Your task to perform on an android device: turn on location history Image 0: 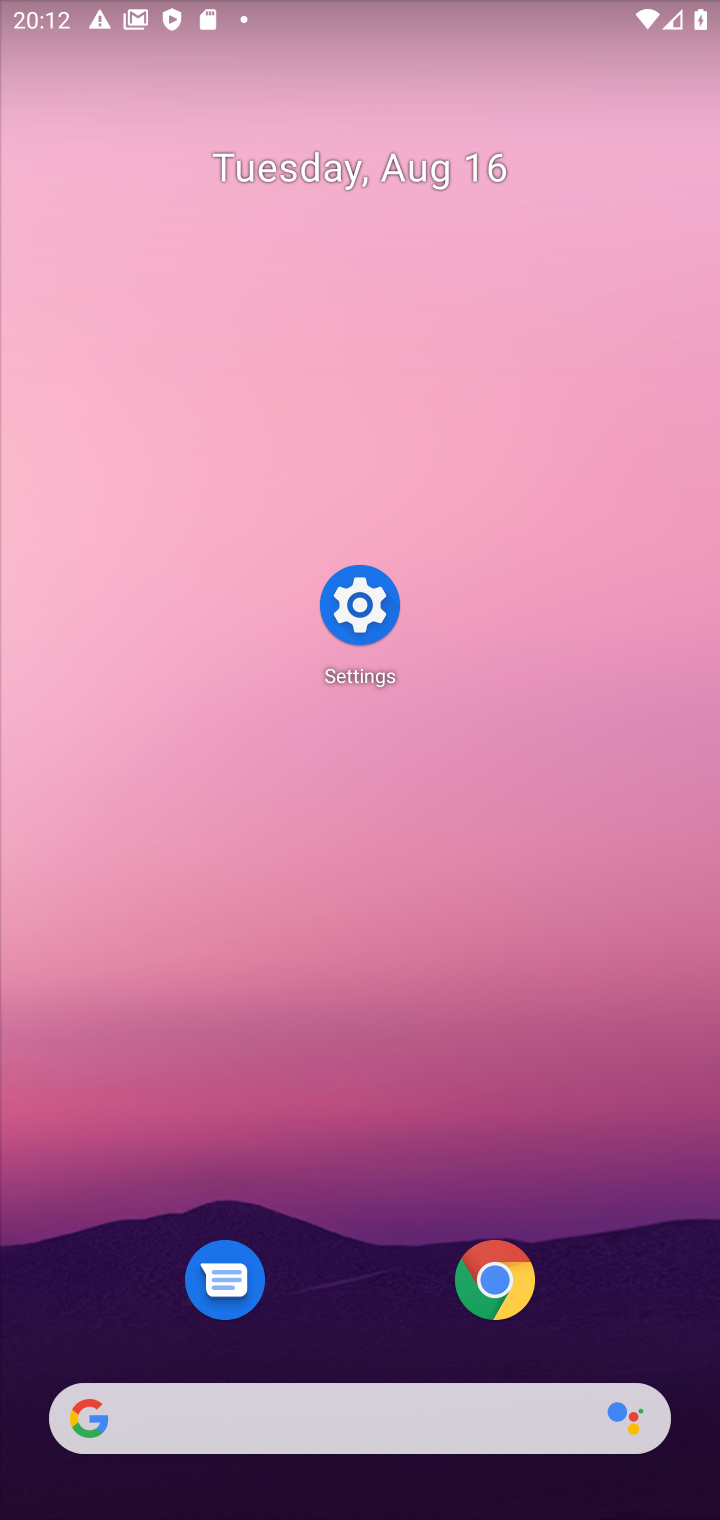
Step 0: drag from (337, 1345) to (415, 103)
Your task to perform on an android device: turn on location history Image 1: 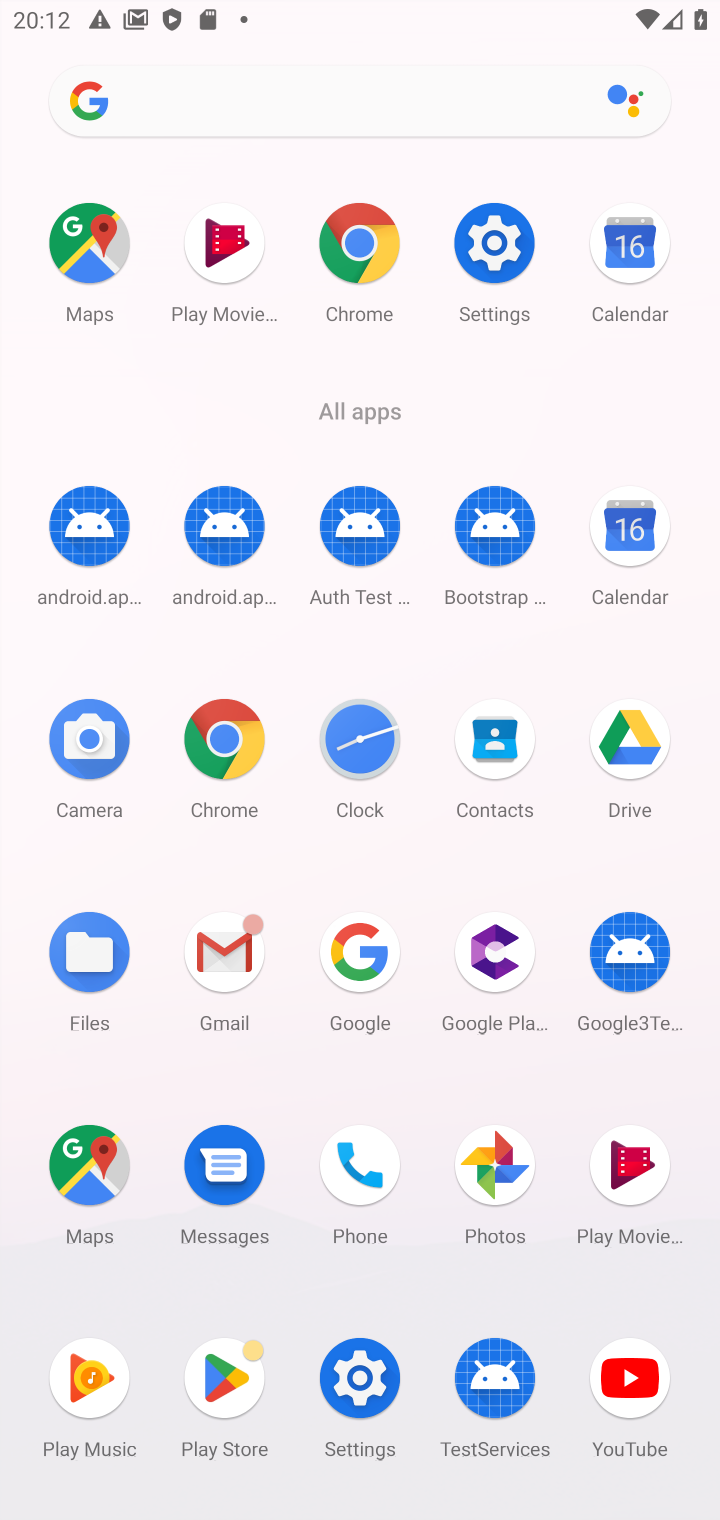
Step 1: click (364, 1396)
Your task to perform on an android device: turn on location history Image 2: 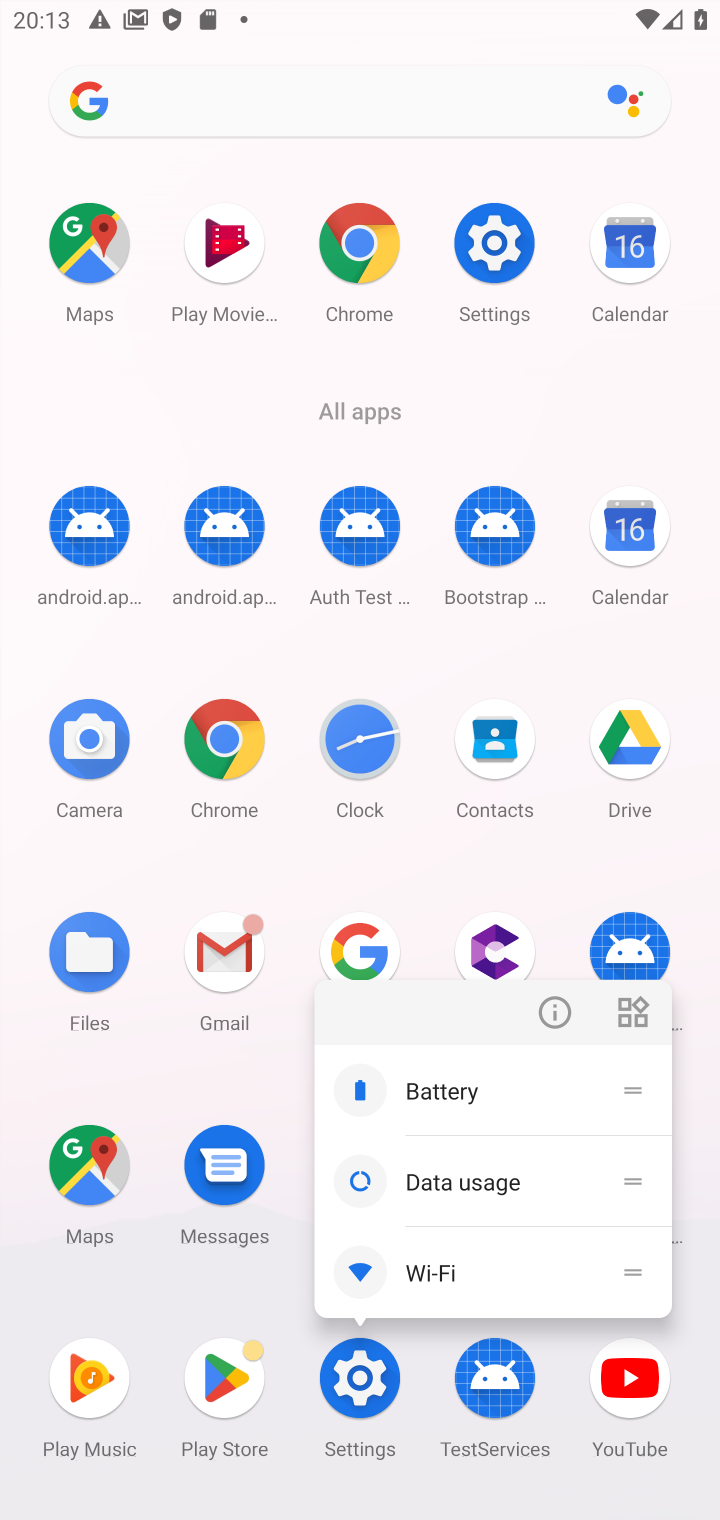
Step 2: click (364, 1396)
Your task to perform on an android device: turn on location history Image 3: 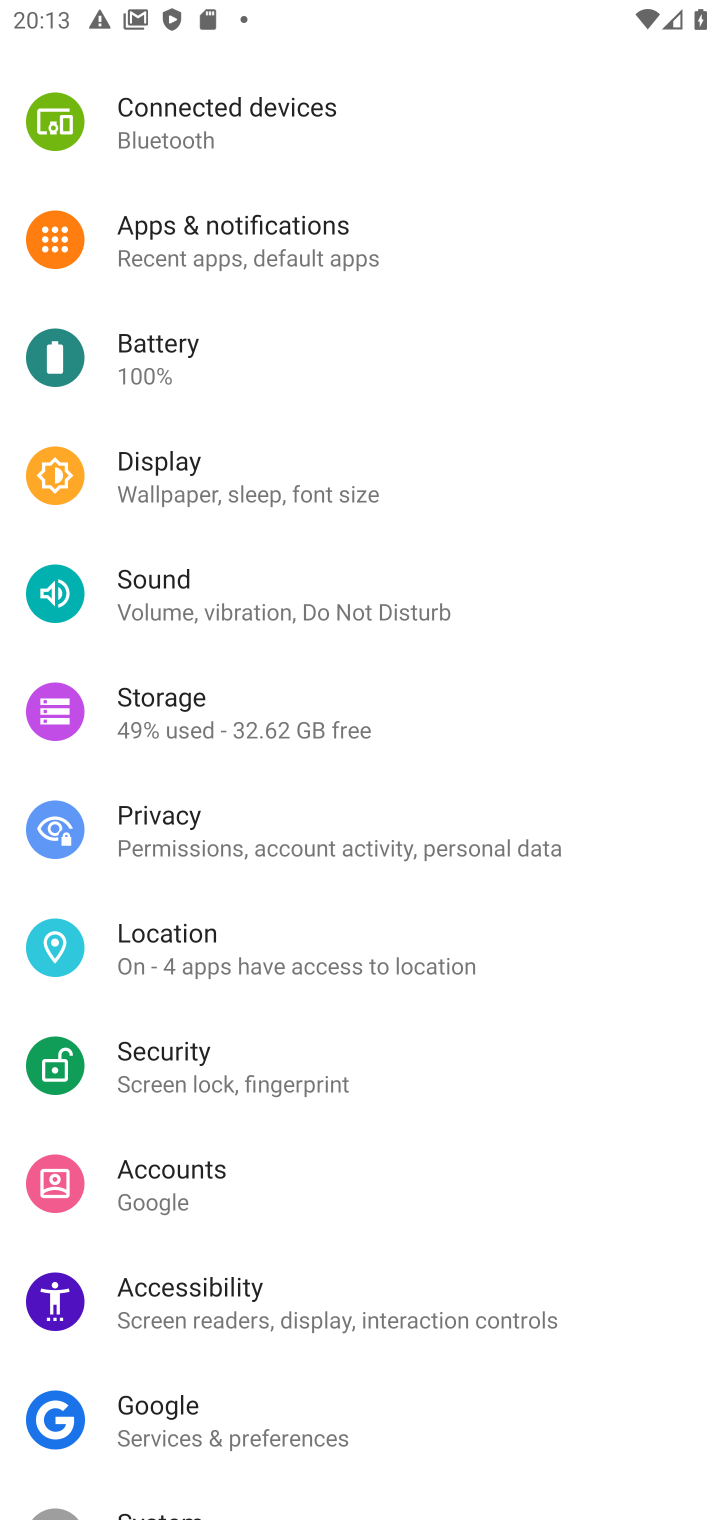
Step 3: click (240, 959)
Your task to perform on an android device: turn on location history Image 4: 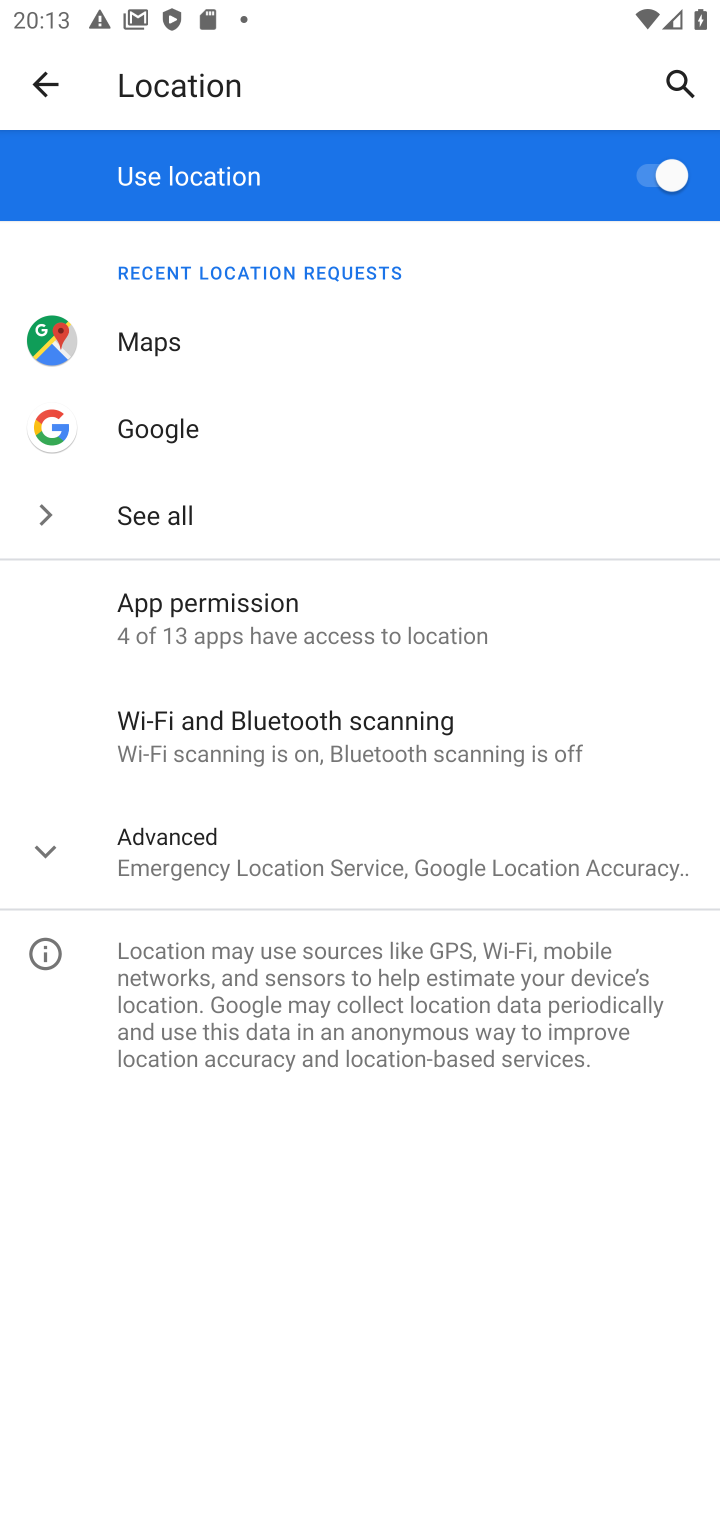
Step 4: click (214, 864)
Your task to perform on an android device: turn on location history Image 5: 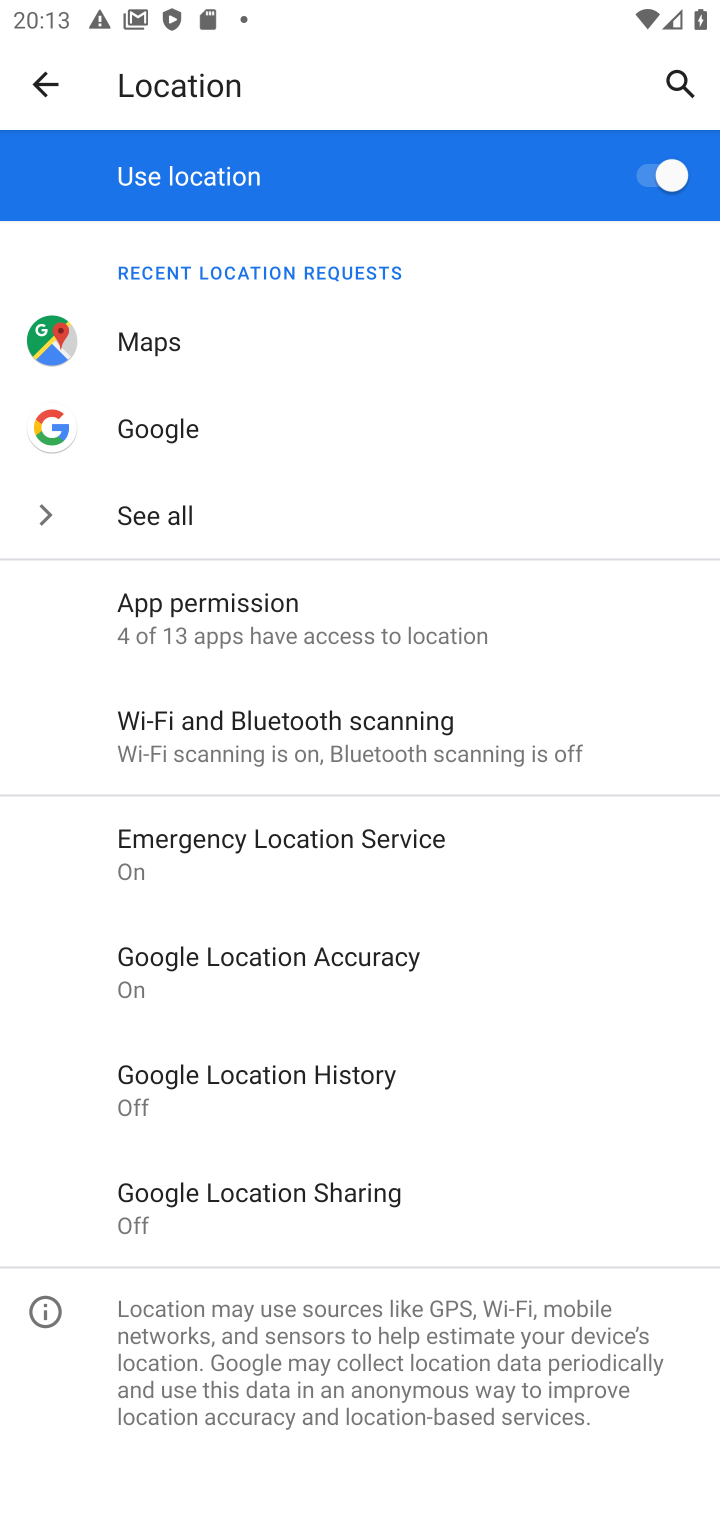
Step 5: click (327, 1089)
Your task to perform on an android device: turn on location history Image 6: 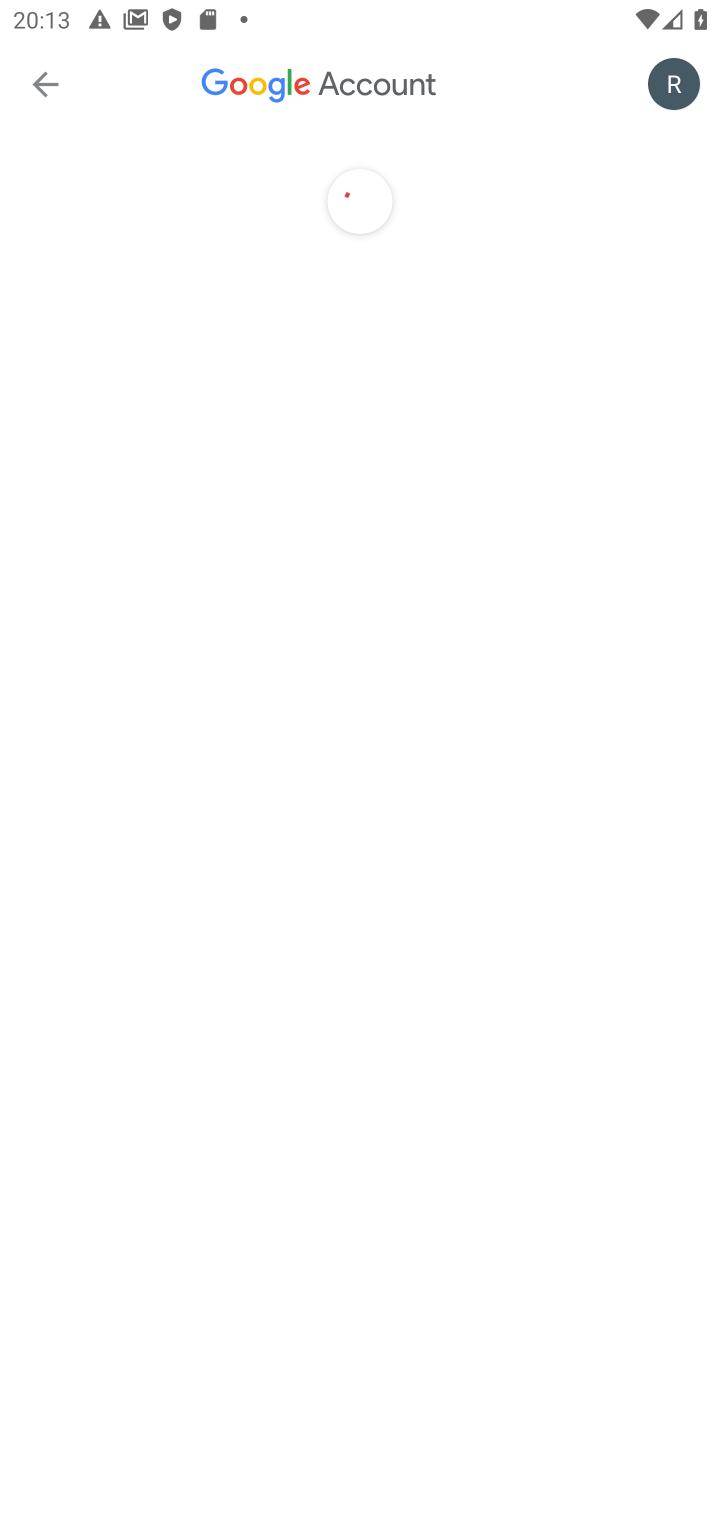
Step 6: click (575, 1092)
Your task to perform on an android device: turn on location history Image 7: 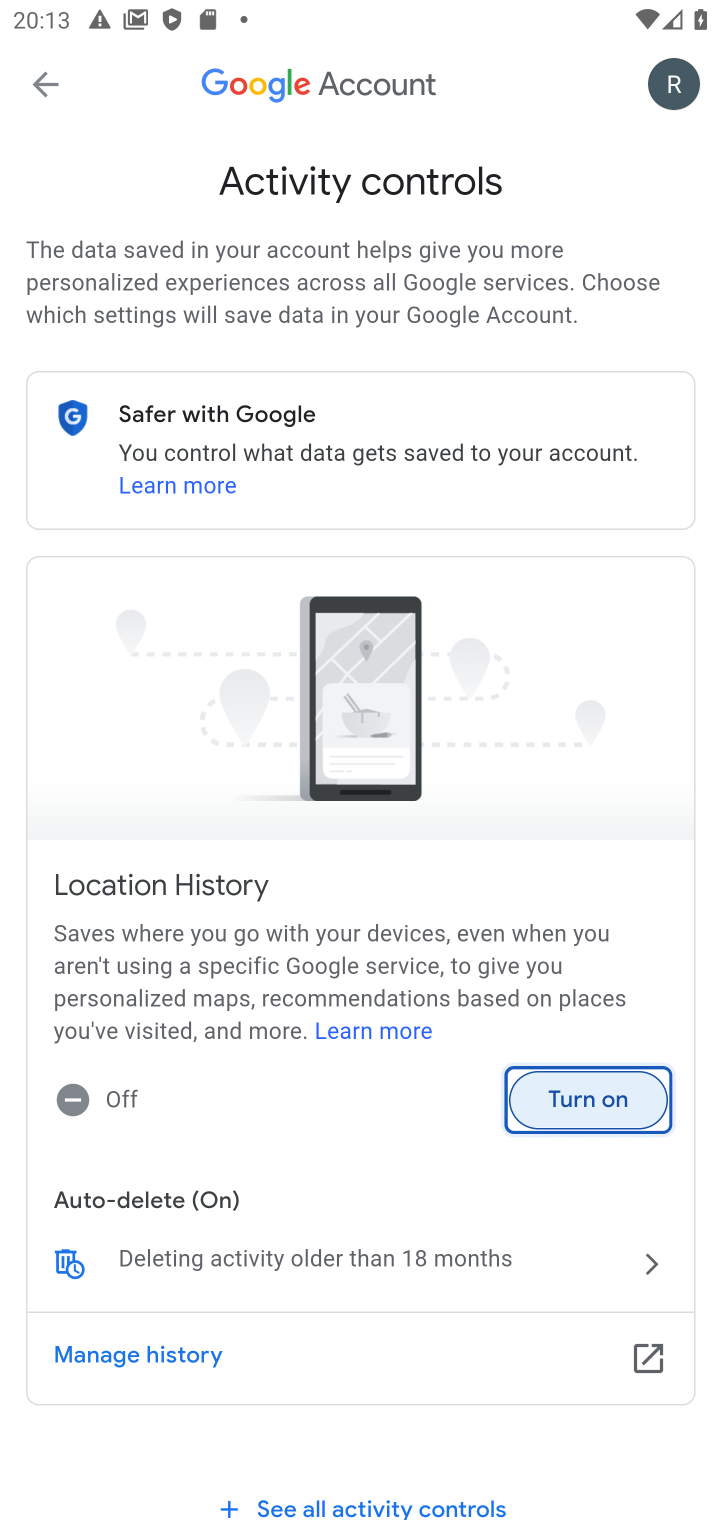
Step 7: click (565, 1100)
Your task to perform on an android device: turn on location history Image 8: 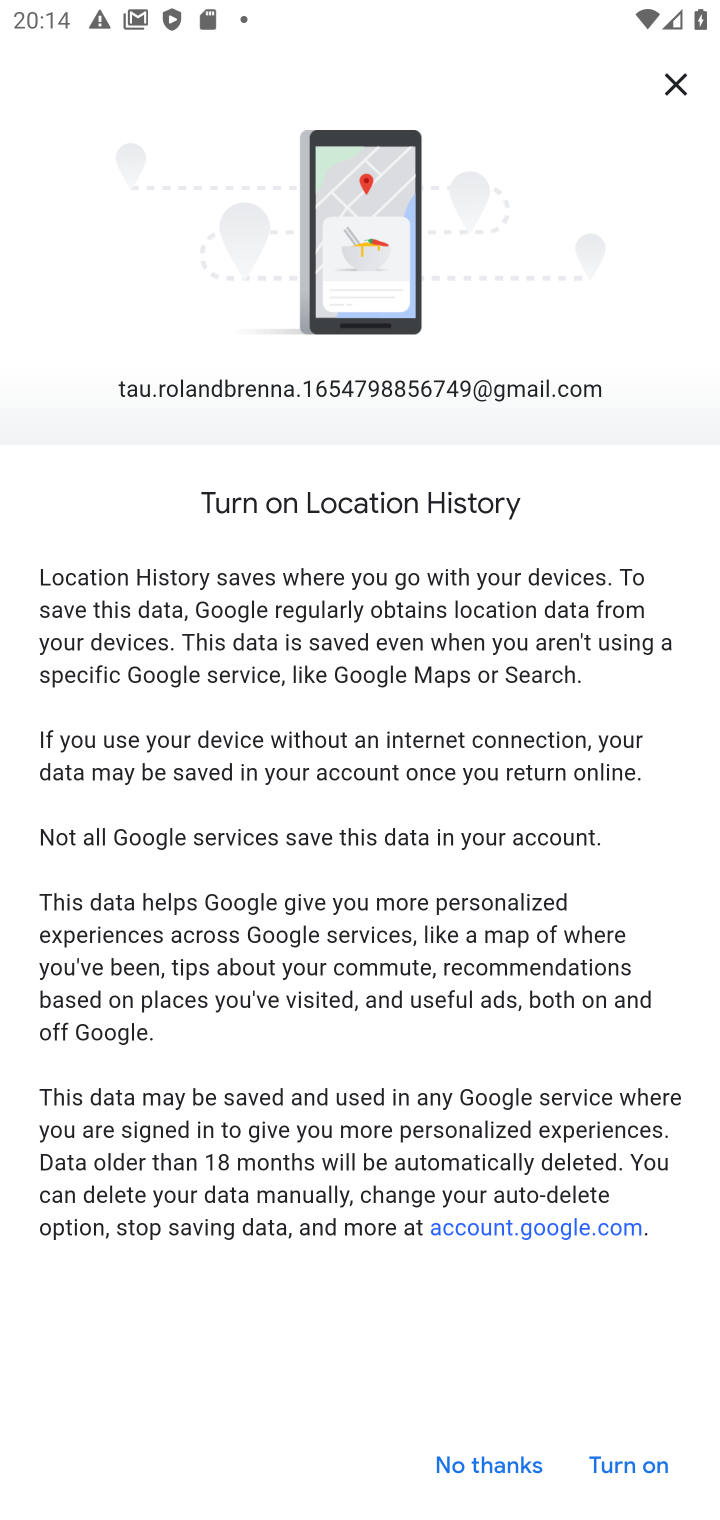
Step 8: click (624, 1464)
Your task to perform on an android device: turn on location history Image 9: 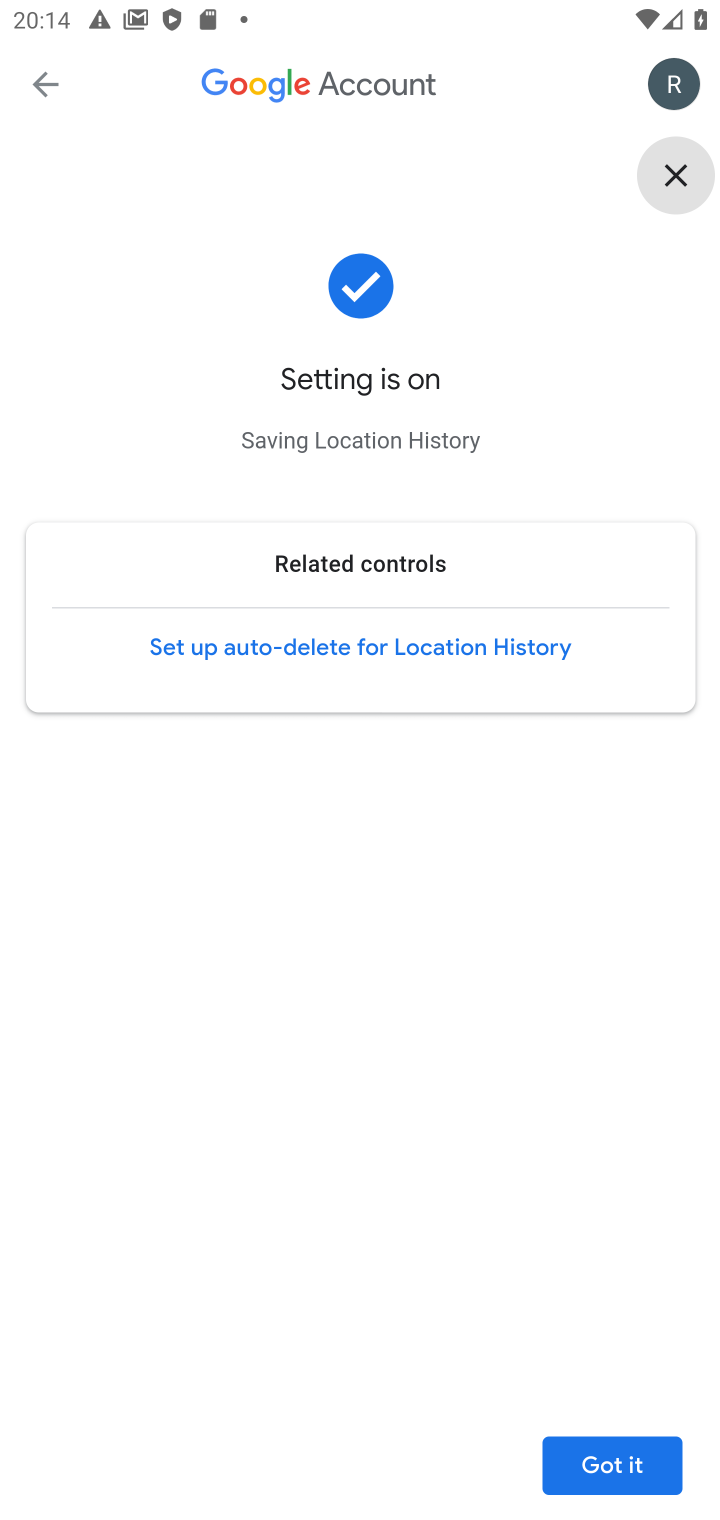
Step 9: click (625, 1451)
Your task to perform on an android device: turn on location history Image 10: 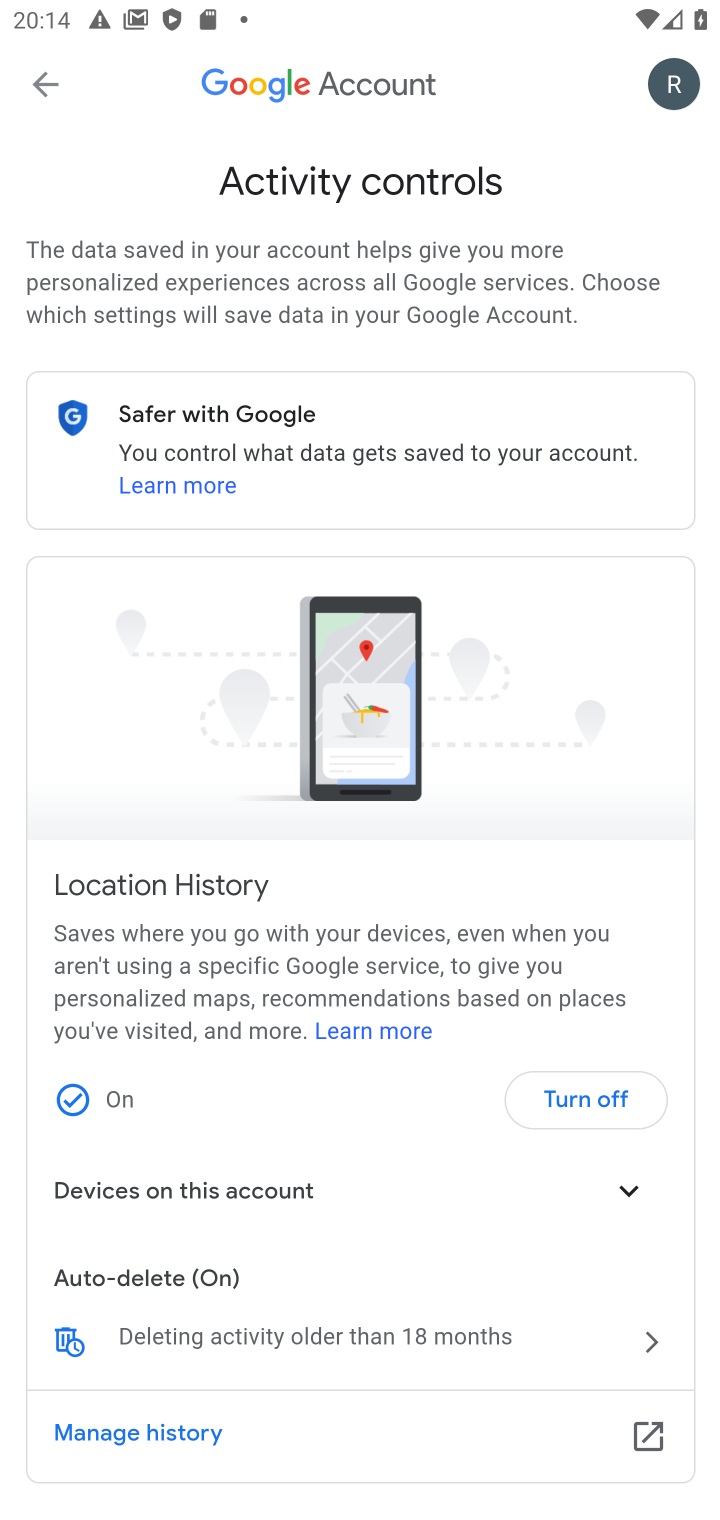
Step 10: task complete